Your task to perform on an android device: turn off notifications in google photos Image 0: 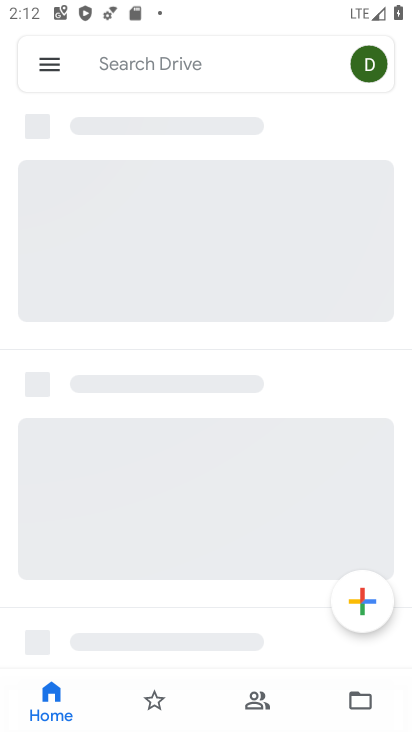
Step 0: press home button
Your task to perform on an android device: turn off notifications in google photos Image 1: 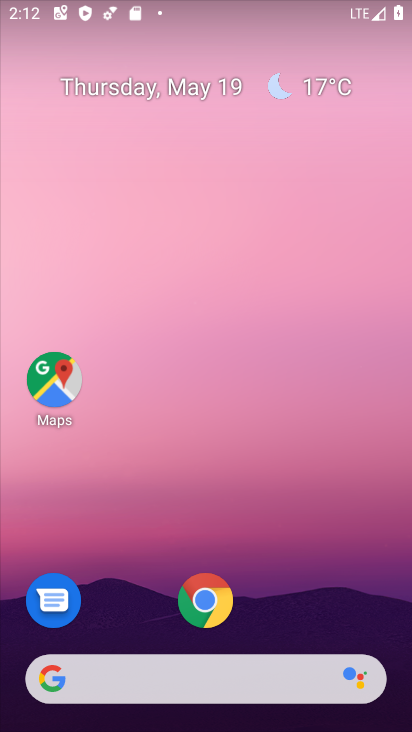
Step 1: drag from (323, 587) to (294, 99)
Your task to perform on an android device: turn off notifications in google photos Image 2: 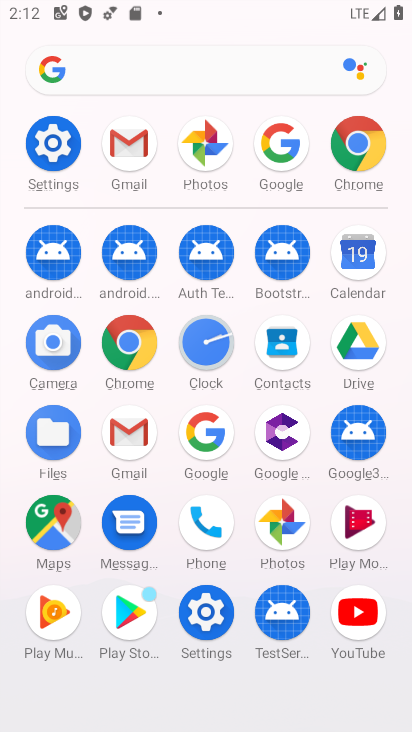
Step 2: click (291, 515)
Your task to perform on an android device: turn off notifications in google photos Image 3: 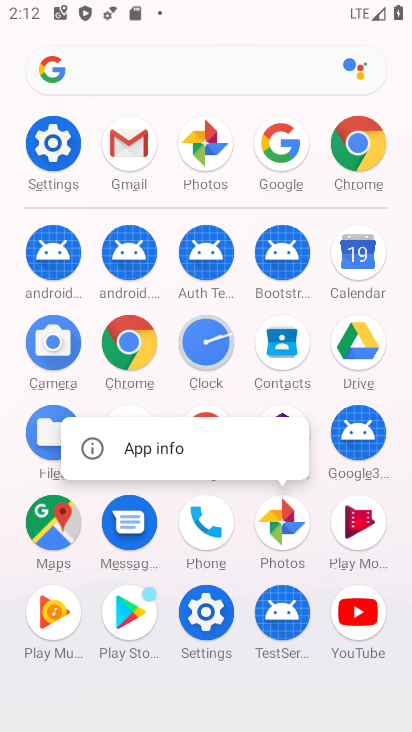
Step 3: click (170, 454)
Your task to perform on an android device: turn off notifications in google photos Image 4: 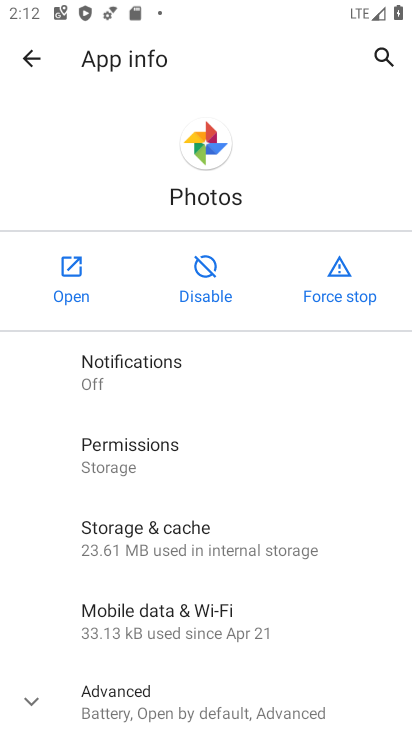
Step 4: click (205, 372)
Your task to perform on an android device: turn off notifications in google photos Image 5: 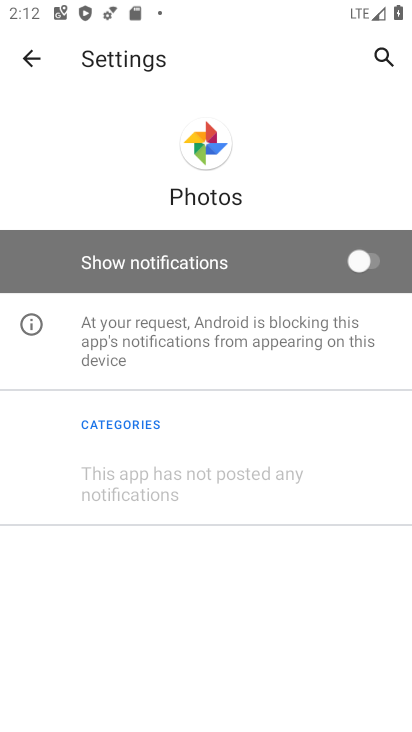
Step 5: task complete